Your task to perform on an android device: turn pop-ups off in chrome Image 0: 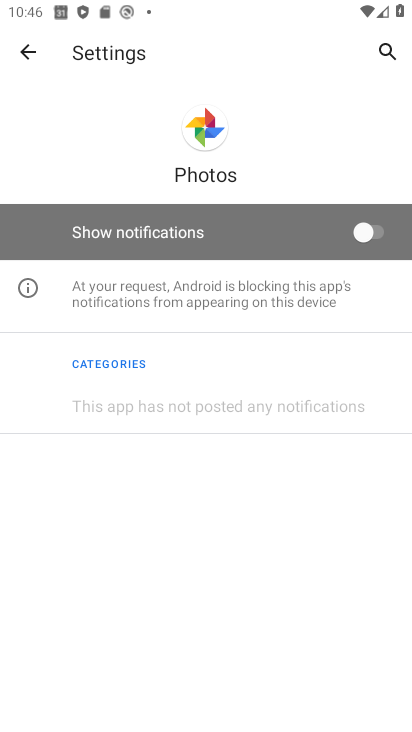
Step 0: press home button
Your task to perform on an android device: turn pop-ups off in chrome Image 1: 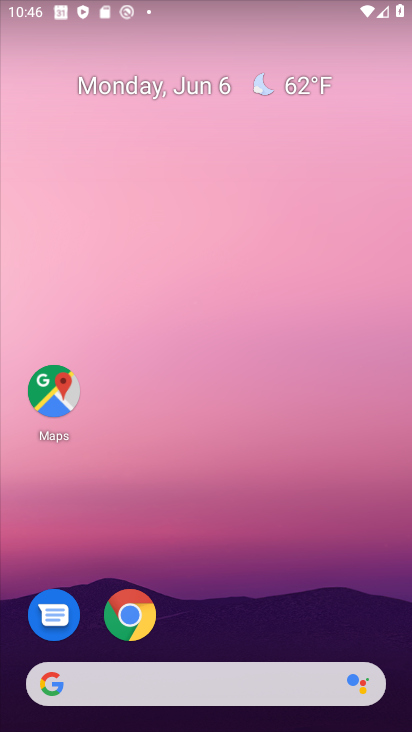
Step 1: click (142, 622)
Your task to perform on an android device: turn pop-ups off in chrome Image 2: 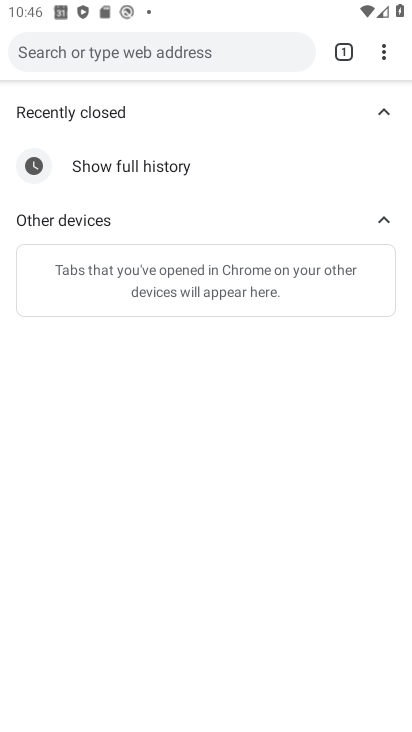
Step 2: drag from (381, 55) to (234, 491)
Your task to perform on an android device: turn pop-ups off in chrome Image 3: 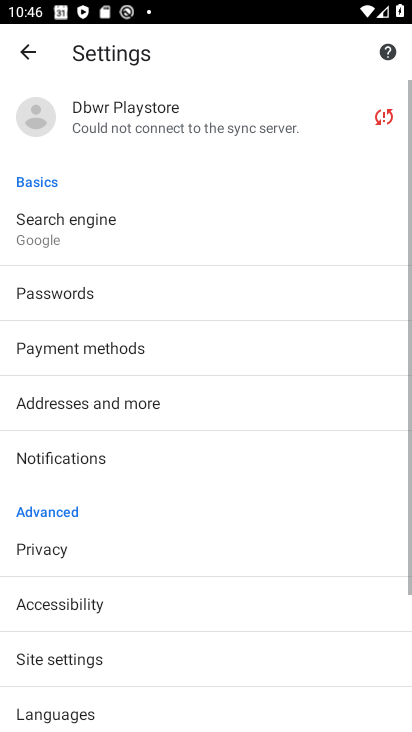
Step 3: drag from (147, 624) to (267, 124)
Your task to perform on an android device: turn pop-ups off in chrome Image 4: 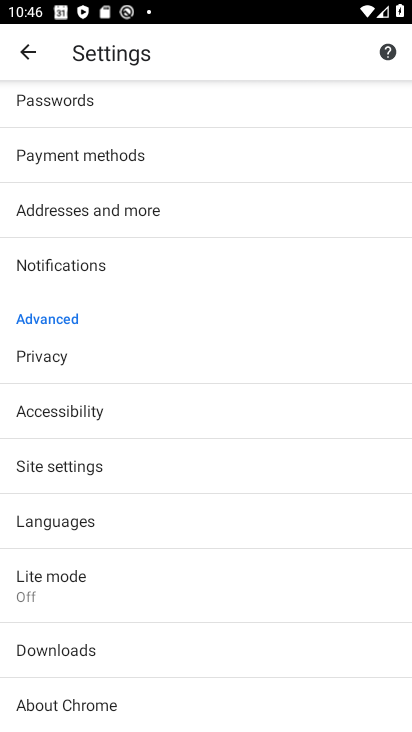
Step 4: click (108, 462)
Your task to perform on an android device: turn pop-ups off in chrome Image 5: 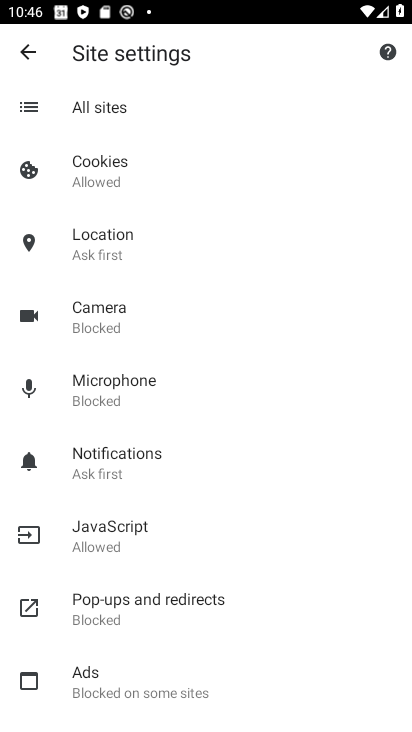
Step 5: click (136, 599)
Your task to perform on an android device: turn pop-ups off in chrome Image 6: 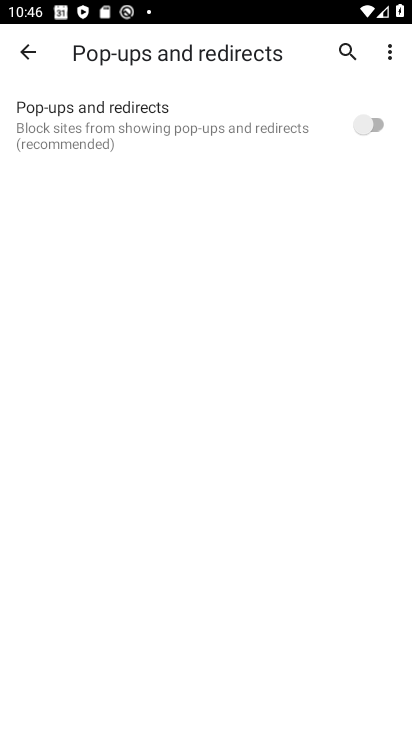
Step 6: task complete